Your task to perform on an android device: Go to Google Image 0: 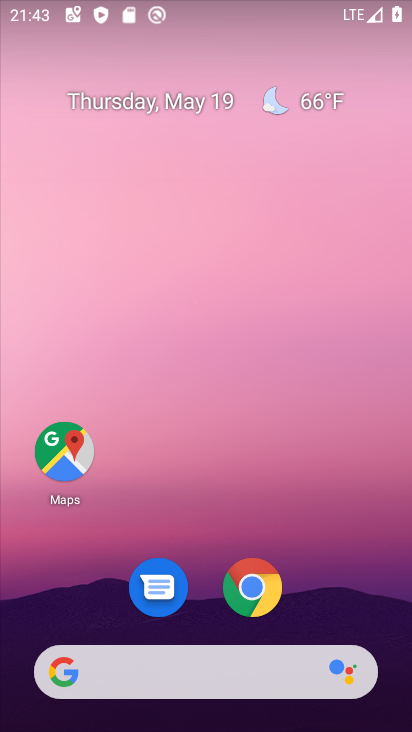
Step 0: drag from (247, 696) to (254, 196)
Your task to perform on an android device: Go to Google Image 1: 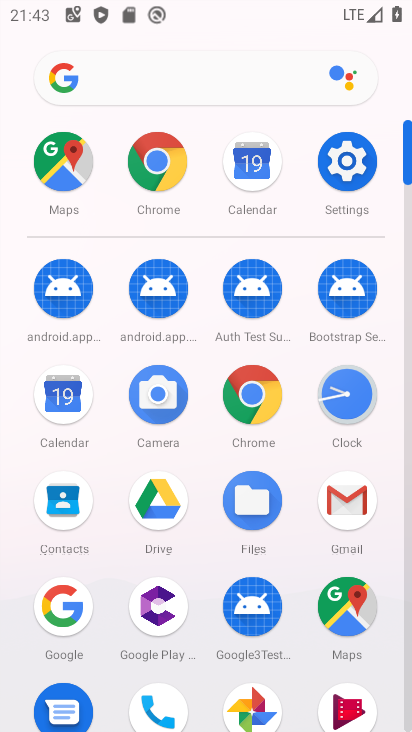
Step 1: click (53, 79)
Your task to perform on an android device: Go to Google Image 2: 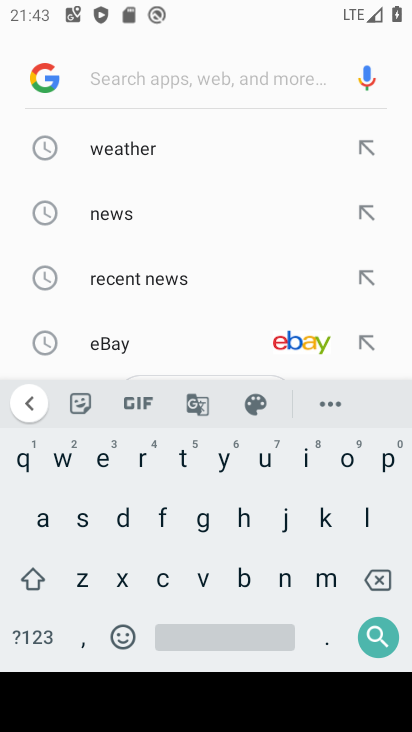
Step 2: click (43, 75)
Your task to perform on an android device: Go to Google Image 3: 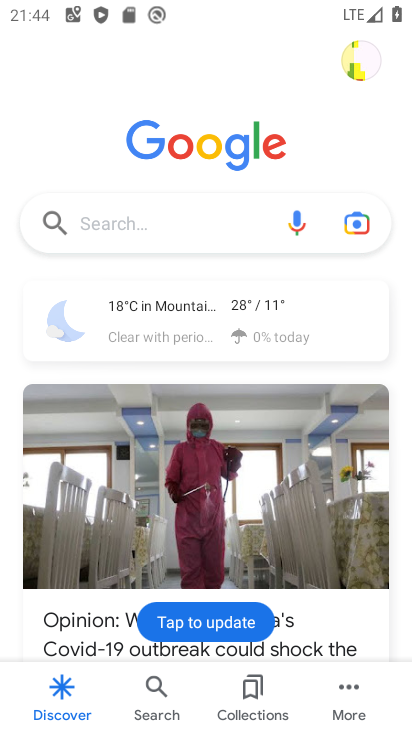
Step 3: task complete